Your task to perform on an android device: Search for Mexican restaurants on Maps Image 0: 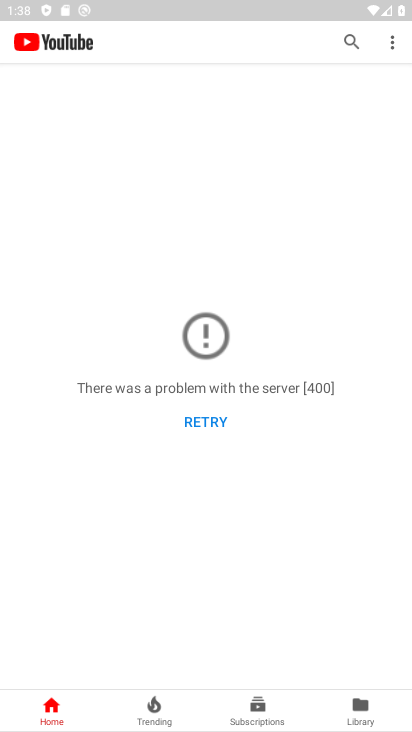
Step 0: press home button
Your task to perform on an android device: Search for Mexican restaurants on Maps Image 1: 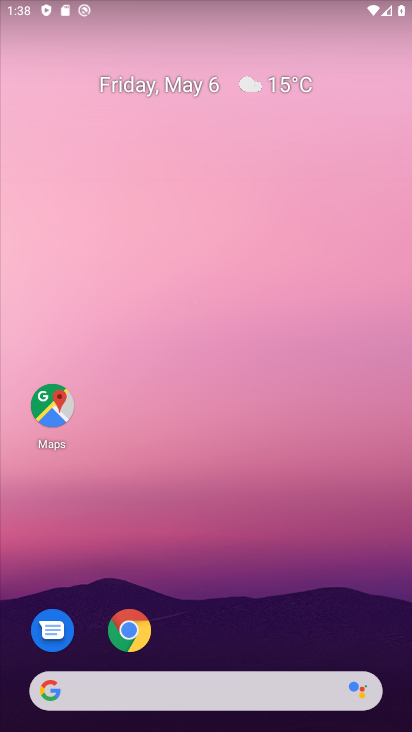
Step 1: click (53, 416)
Your task to perform on an android device: Search for Mexican restaurants on Maps Image 2: 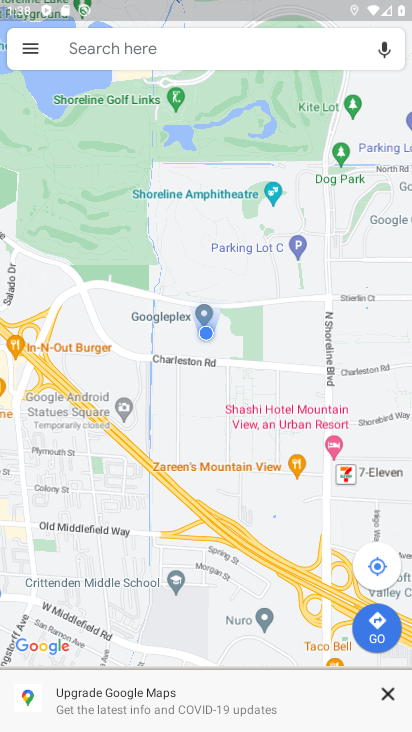
Step 2: click (125, 46)
Your task to perform on an android device: Search for Mexican restaurants on Maps Image 3: 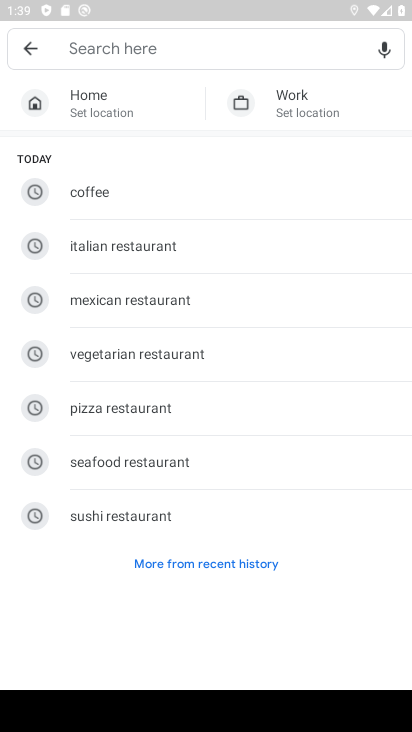
Step 3: click (120, 308)
Your task to perform on an android device: Search for Mexican restaurants on Maps Image 4: 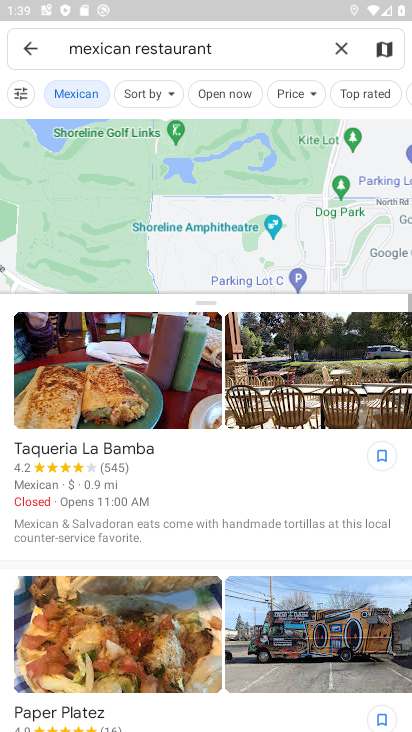
Step 4: task complete